Your task to perform on an android device: add a contact Image 0: 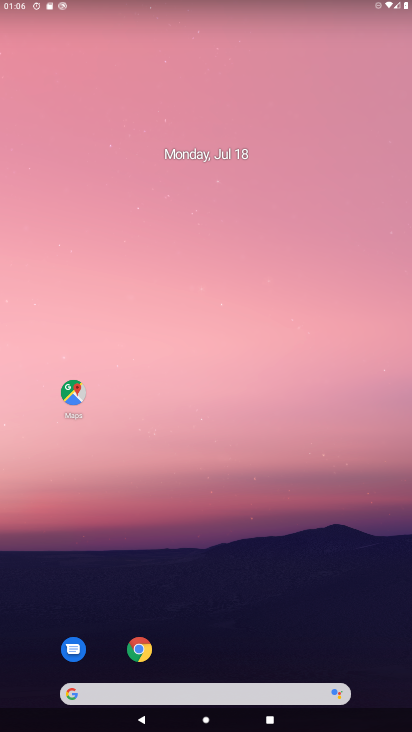
Step 0: drag from (14, 690) to (208, 183)
Your task to perform on an android device: add a contact Image 1: 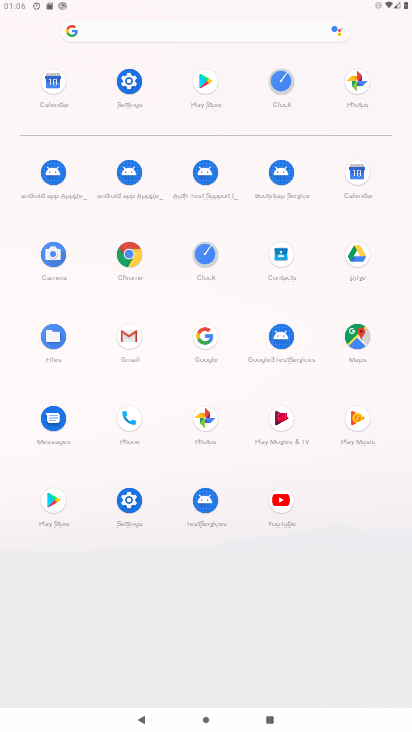
Step 1: click (288, 267)
Your task to perform on an android device: add a contact Image 2: 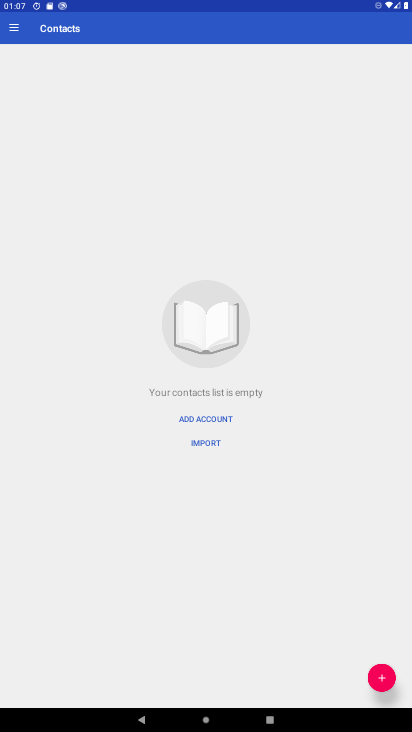
Step 2: click (373, 672)
Your task to perform on an android device: add a contact Image 3: 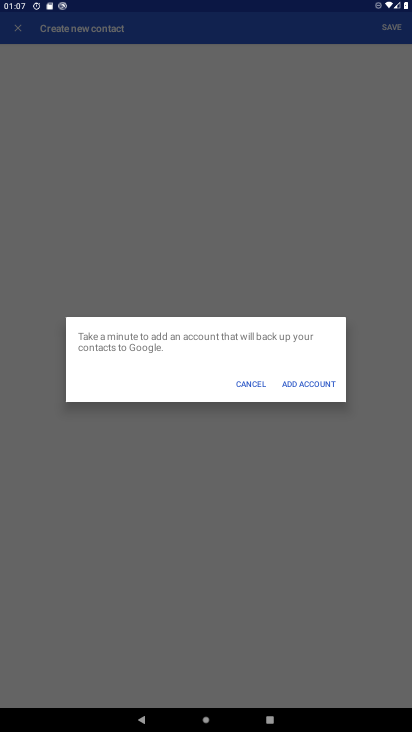
Step 3: click (305, 384)
Your task to perform on an android device: add a contact Image 4: 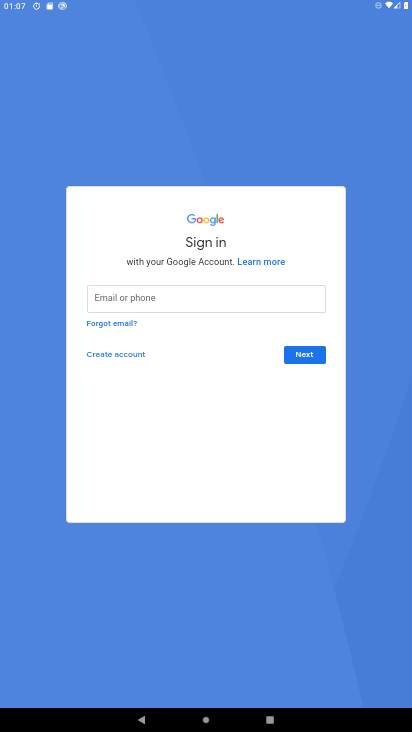
Step 4: task complete